Your task to perform on an android device: change the upload size in google photos Image 0: 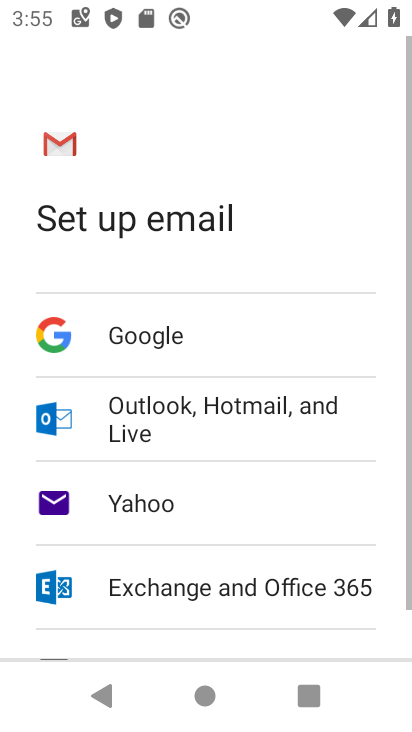
Step 0: press home button
Your task to perform on an android device: change the upload size in google photos Image 1: 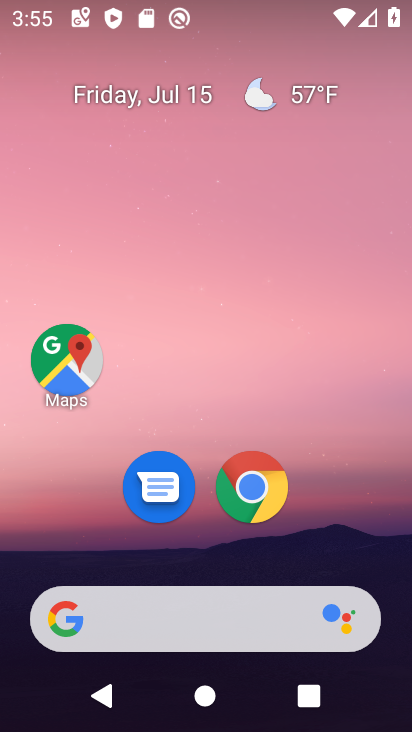
Step 1: drag from (219, 482) to (244, 384)
Your task to perform on an android device: change the upload size in google photos Image 2: 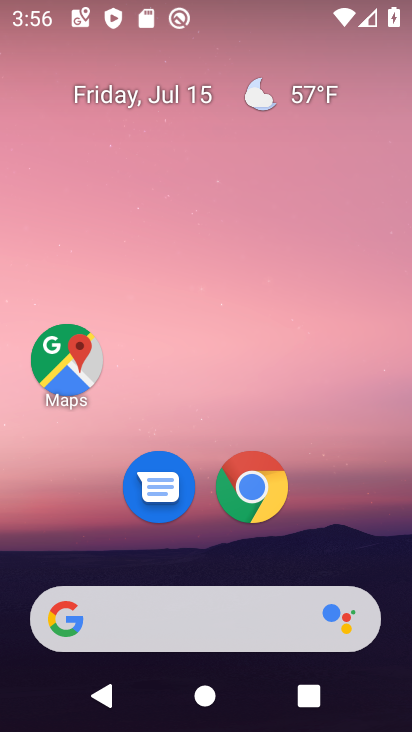
Step 2: drag from (193, 640) to (249, 314)
Your task to perform on an android device: change the upload size in google photos Image 3: 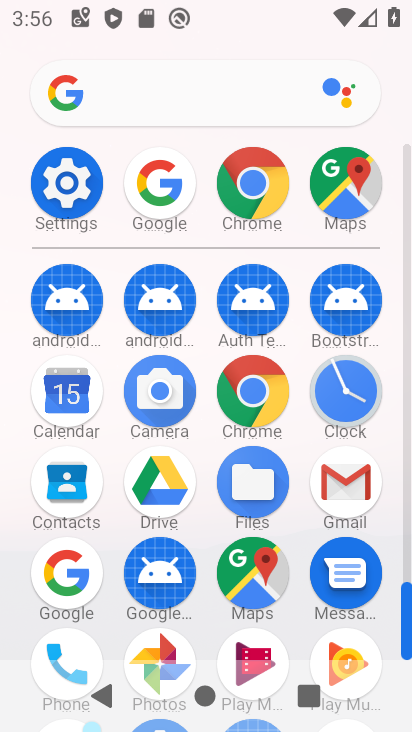
Step 3: drag from (200, 557) to (246, 328)
Your task to perform on an android device: change the upload size in google photos Image 4: 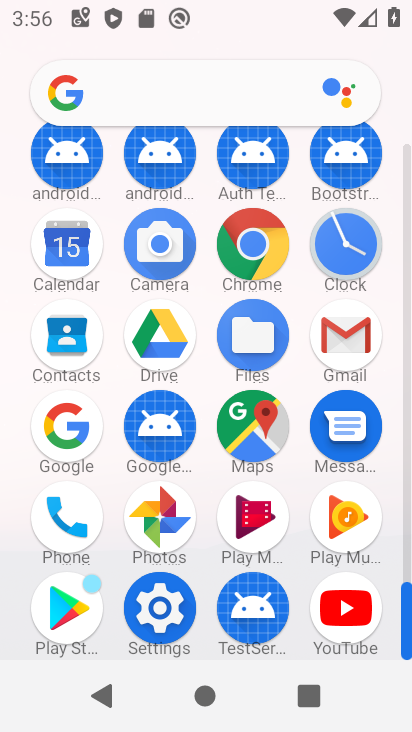
Step 4: click (174, 538)
Your task to perform on an android device: change the upload size in google photos Image 5: 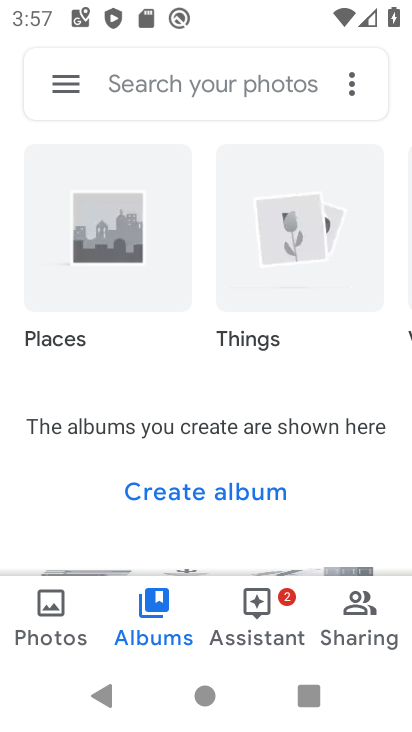
Step 5: click (63, 82)
Your task to perform on an android device: change the upload size in google photos Image 6: 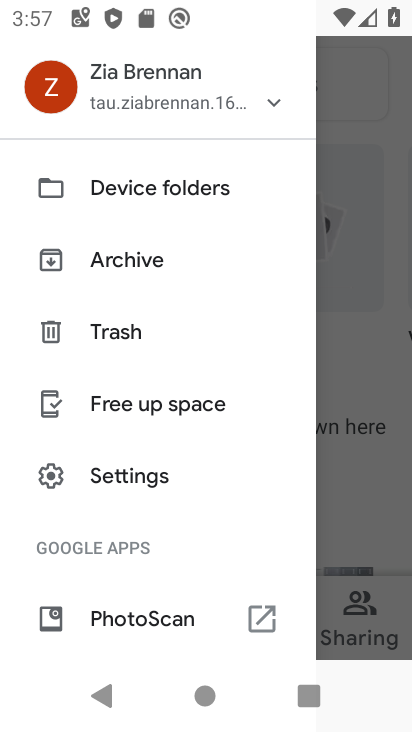
Step 6: click (107, 477)
Your task to perform on an android device: change the upload size in google photos Image 7: 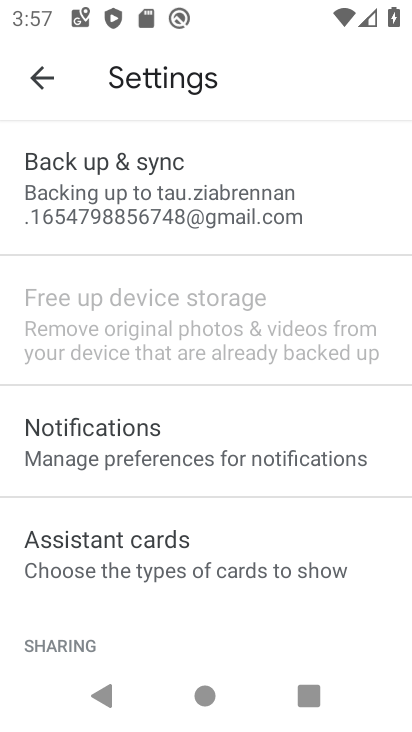
Step 7: click (175, 197)
Your task to perform on an android device: change the upload size in google photos Image 8: 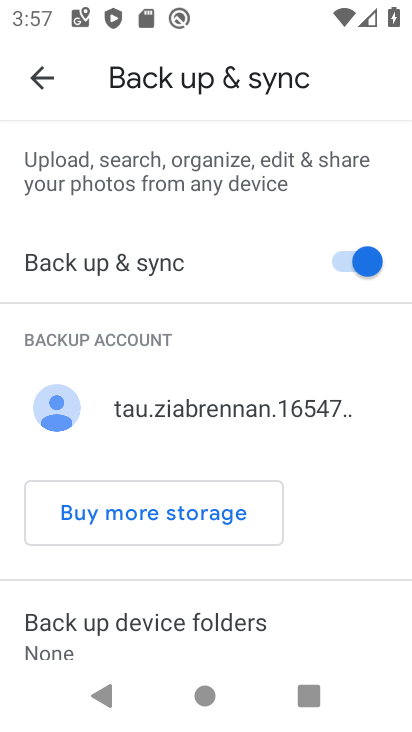
Step 8: drag from (152, 543) to (195, 267)
Your task to perform on an android device: change the upload size in google photos Image 9: 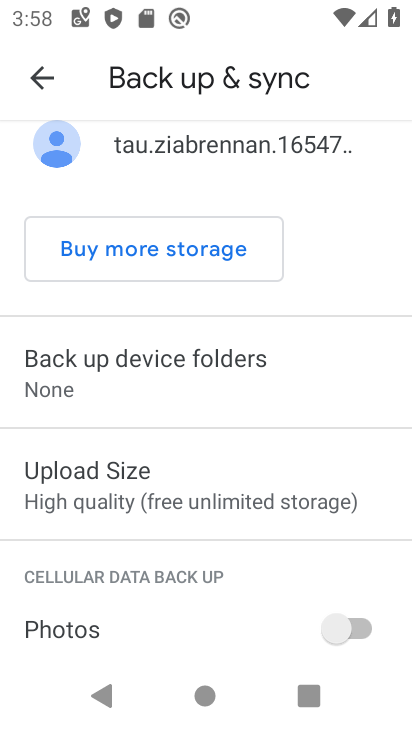
Step 9: drag from (187, 408) to (218, 286)
Your task to perform on an android device: change the upload size in google photos Image 10: 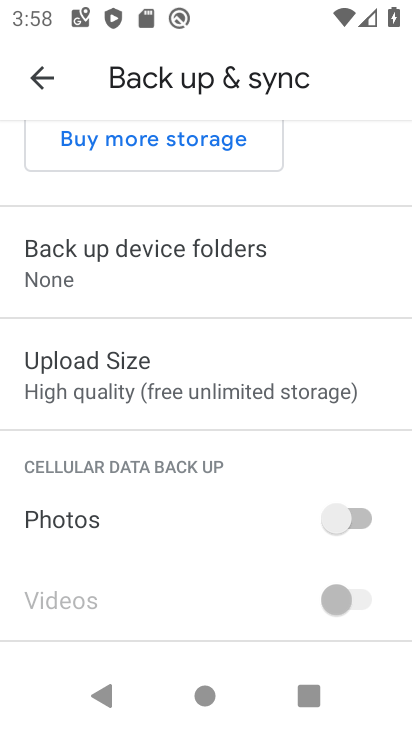
Step 10: click (180, 386)
Your task to perform on an android device: change the upload size in google photos Image 11: 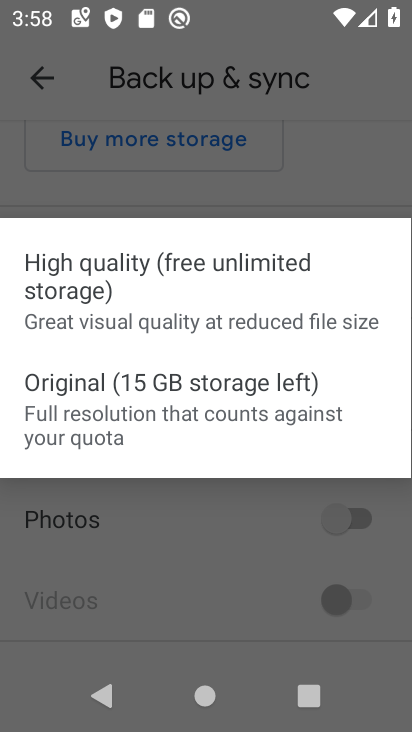
Step 11: click (166, 387)
Your task to perform on an android device: change the upload size in google photos Image 12: 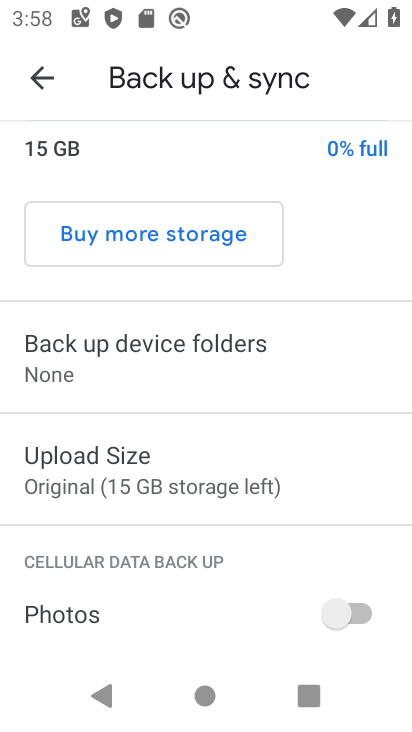
Step 12: task complete